Your task to perform on an android device: Search for desk lamps on article.com Image 0: 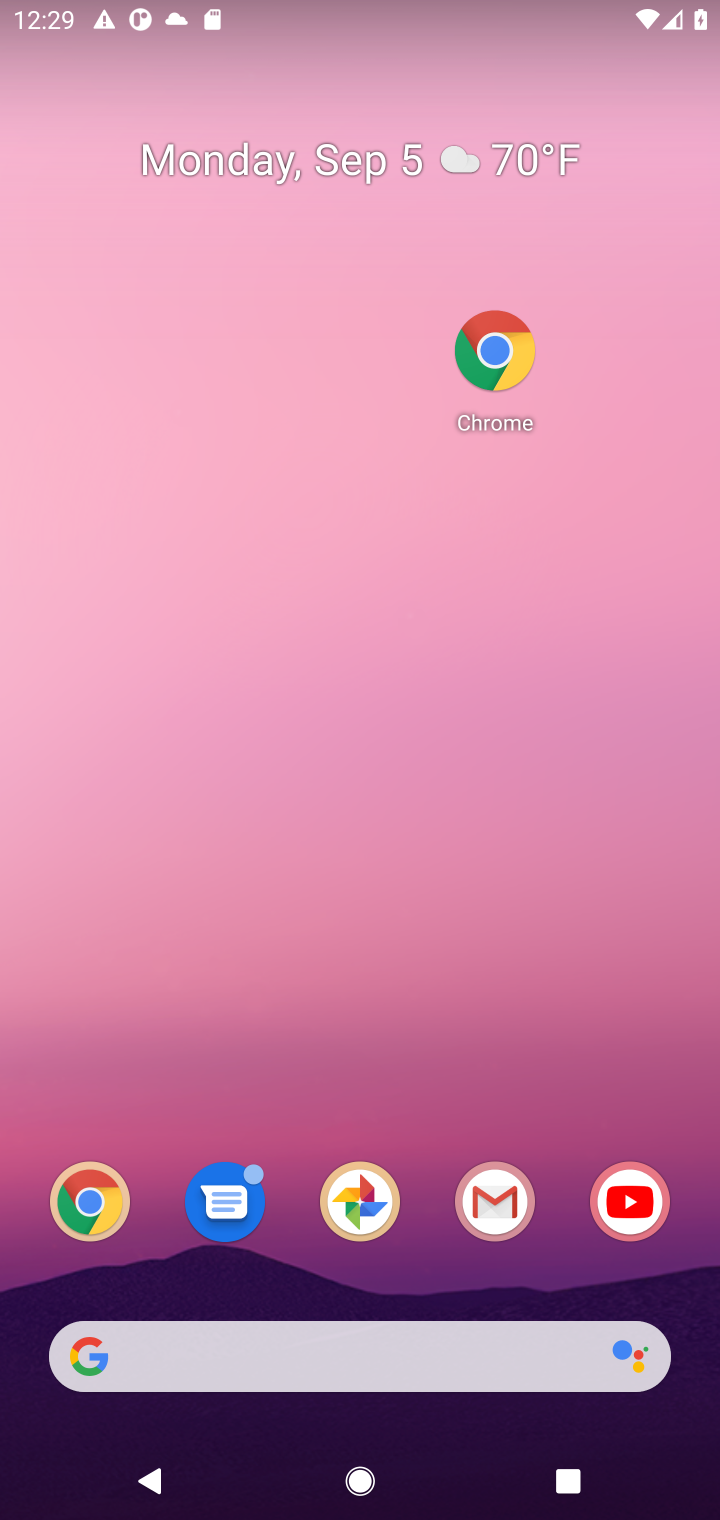
Step 0: drag from (430, 1209) to (628, 87)
Your task to perform on an android device: Search for desk lamps on article.com Image 1: 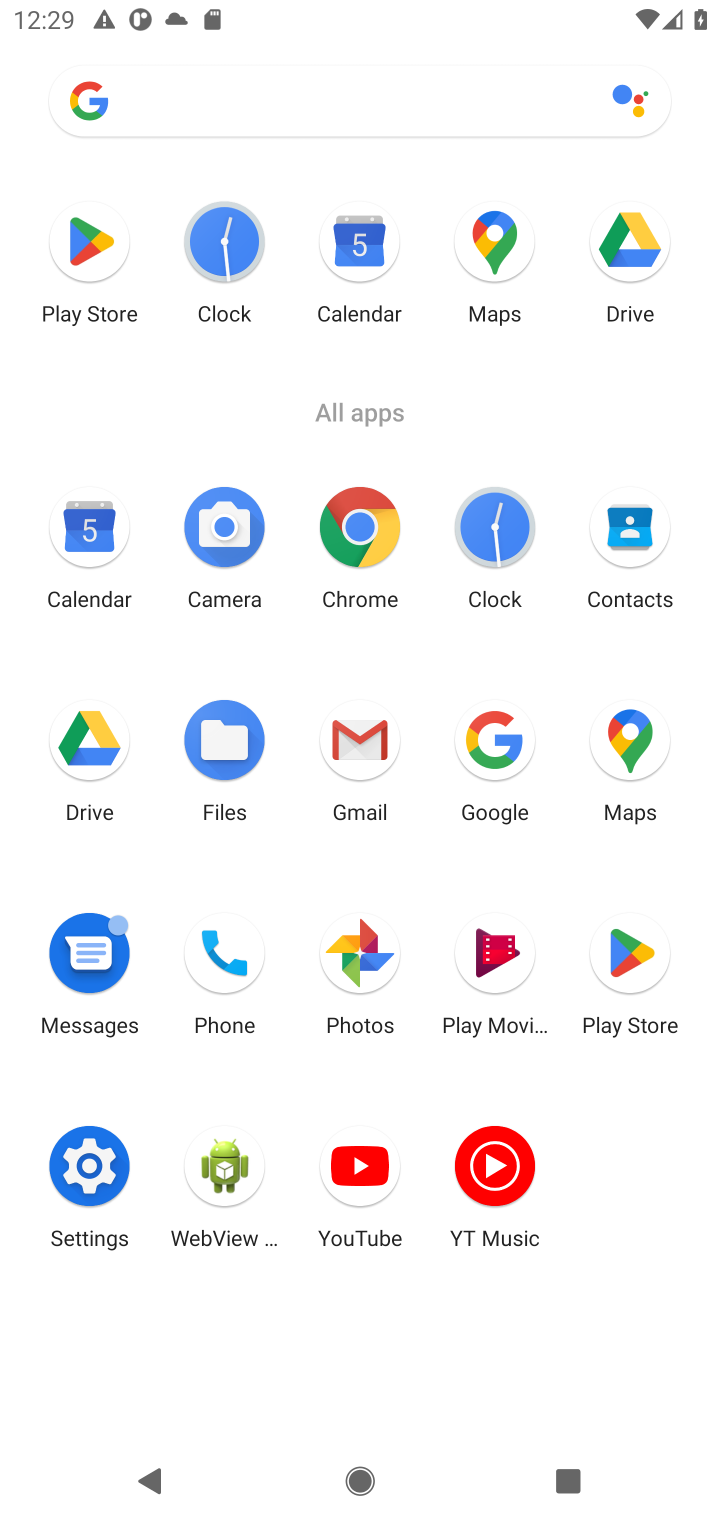
Step 1: click (359, 522)
Your task to perform on an android device: Search for desk lamps on article.com Image 2: 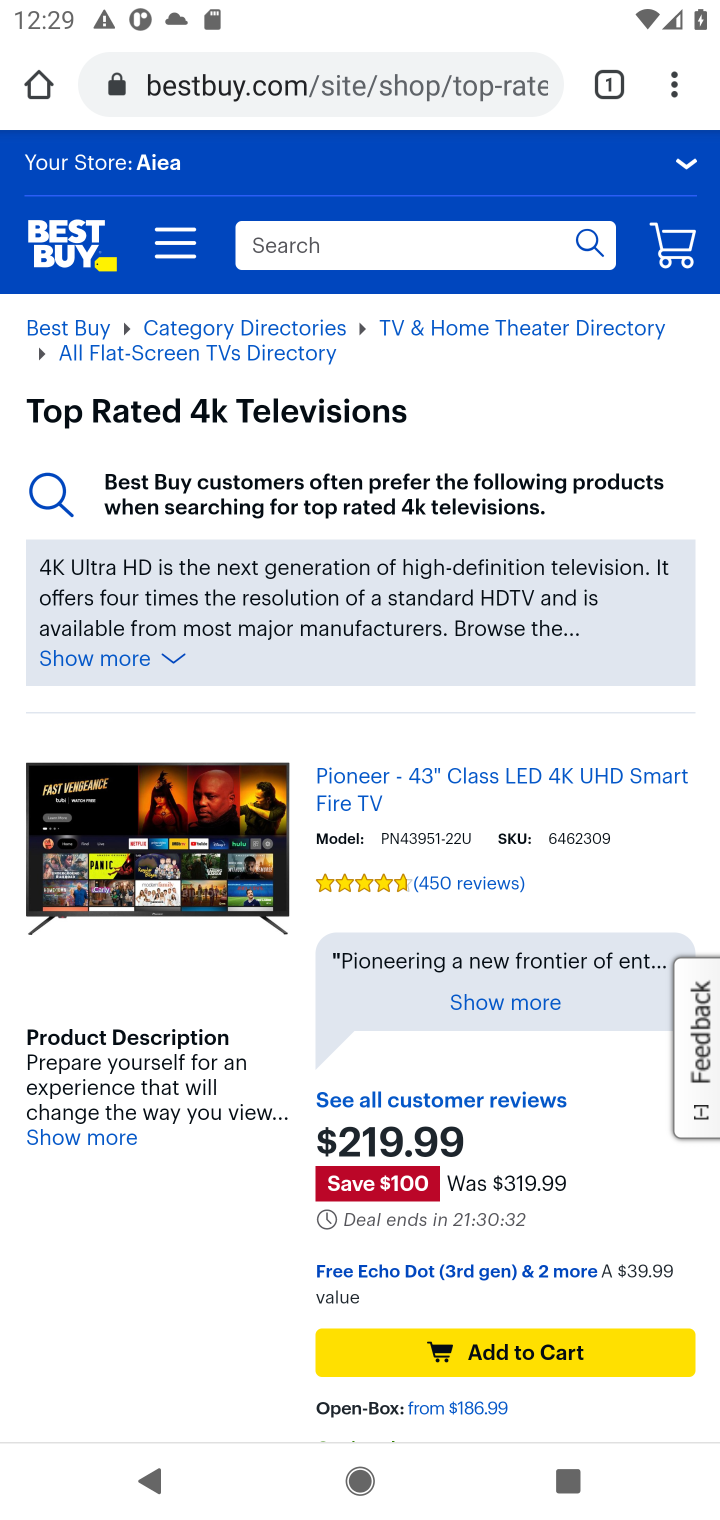
Step 2: click (338, 77)
Your task to perform on an android device: Search for desk lamps on article.com Image 3: 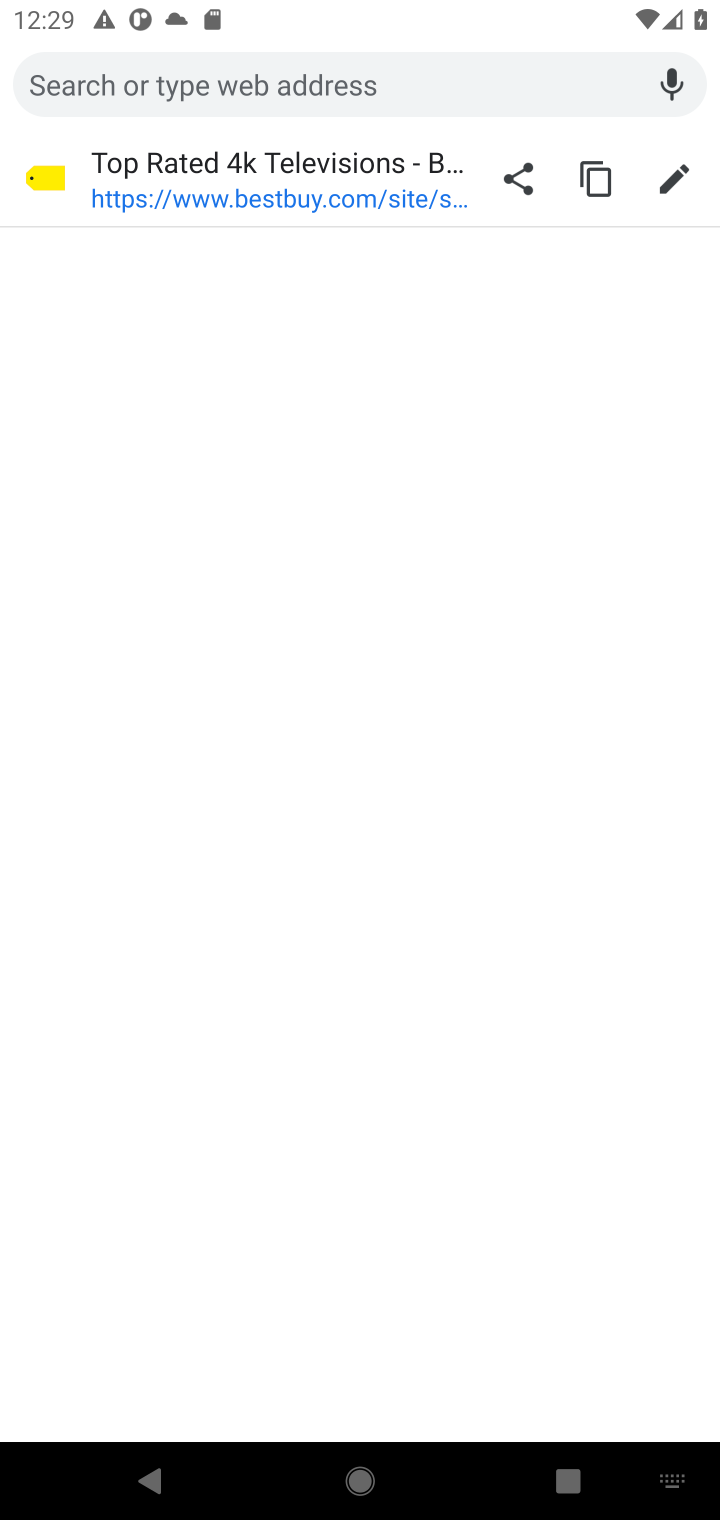
Step 3: type "desk lamps on article.com"
Your task to perform on an android device: Search for desk lamps on article.com Image 4: 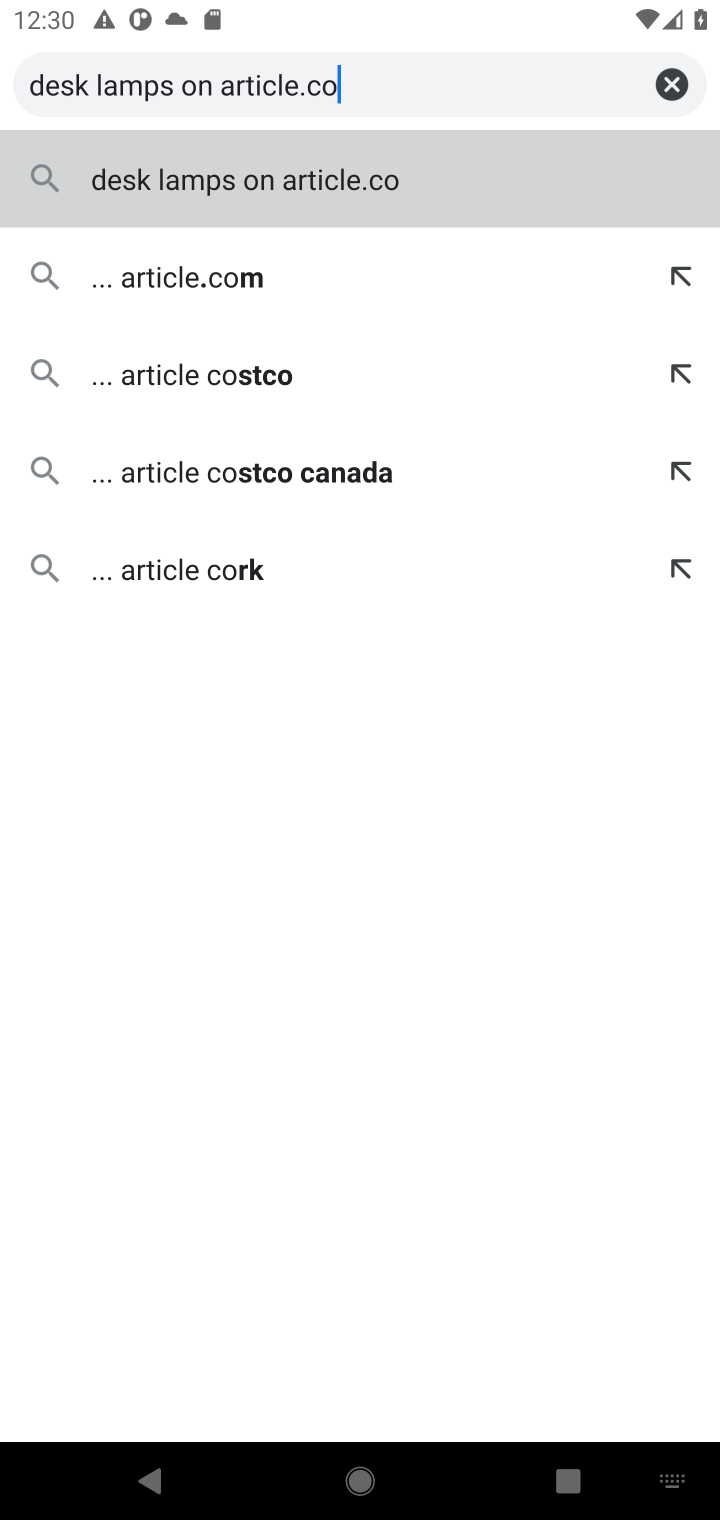
Step 4: type "m"
Your task to perform on an android device: Search for desk lamps on article.com Image 5: 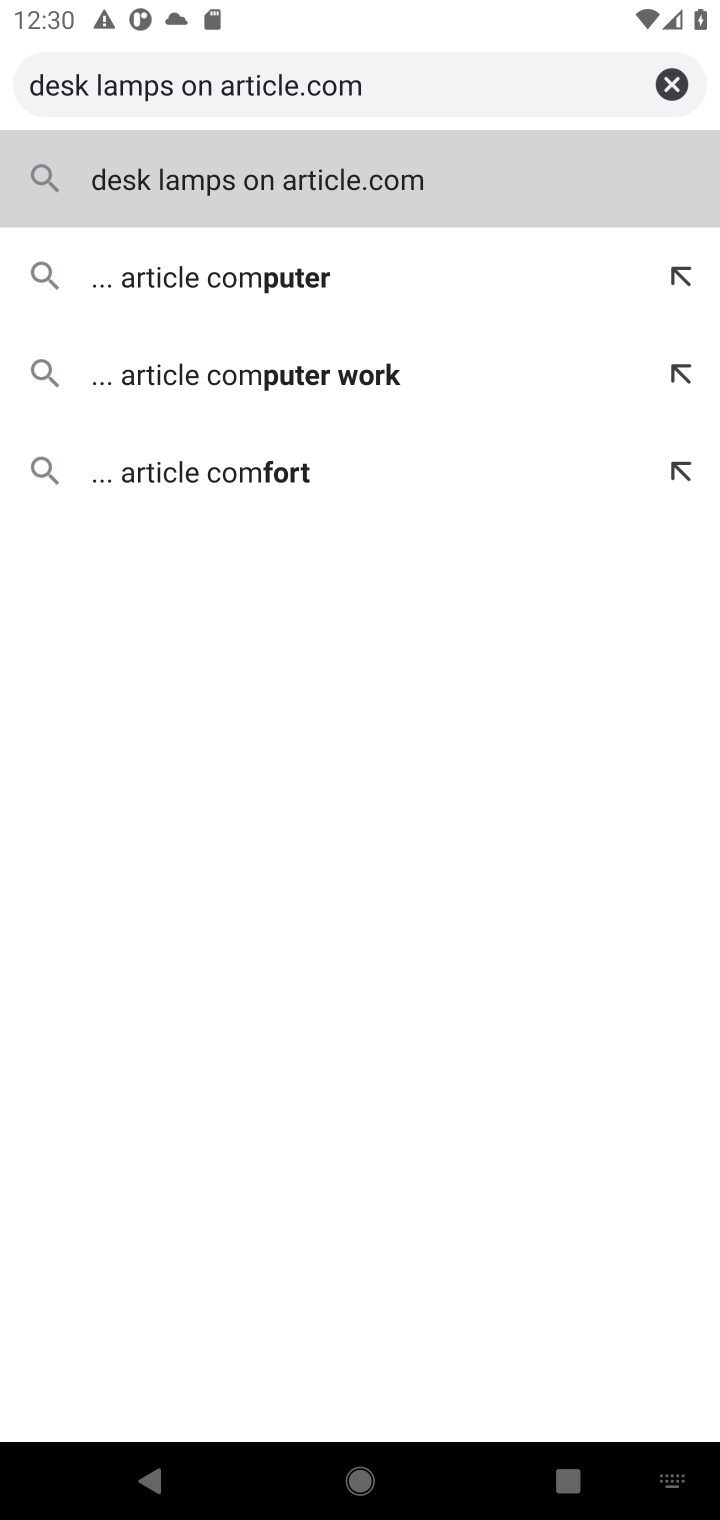
Step 5: press enter
Your task to perform on an android device: Search for desk lamps on article.com Image 6: 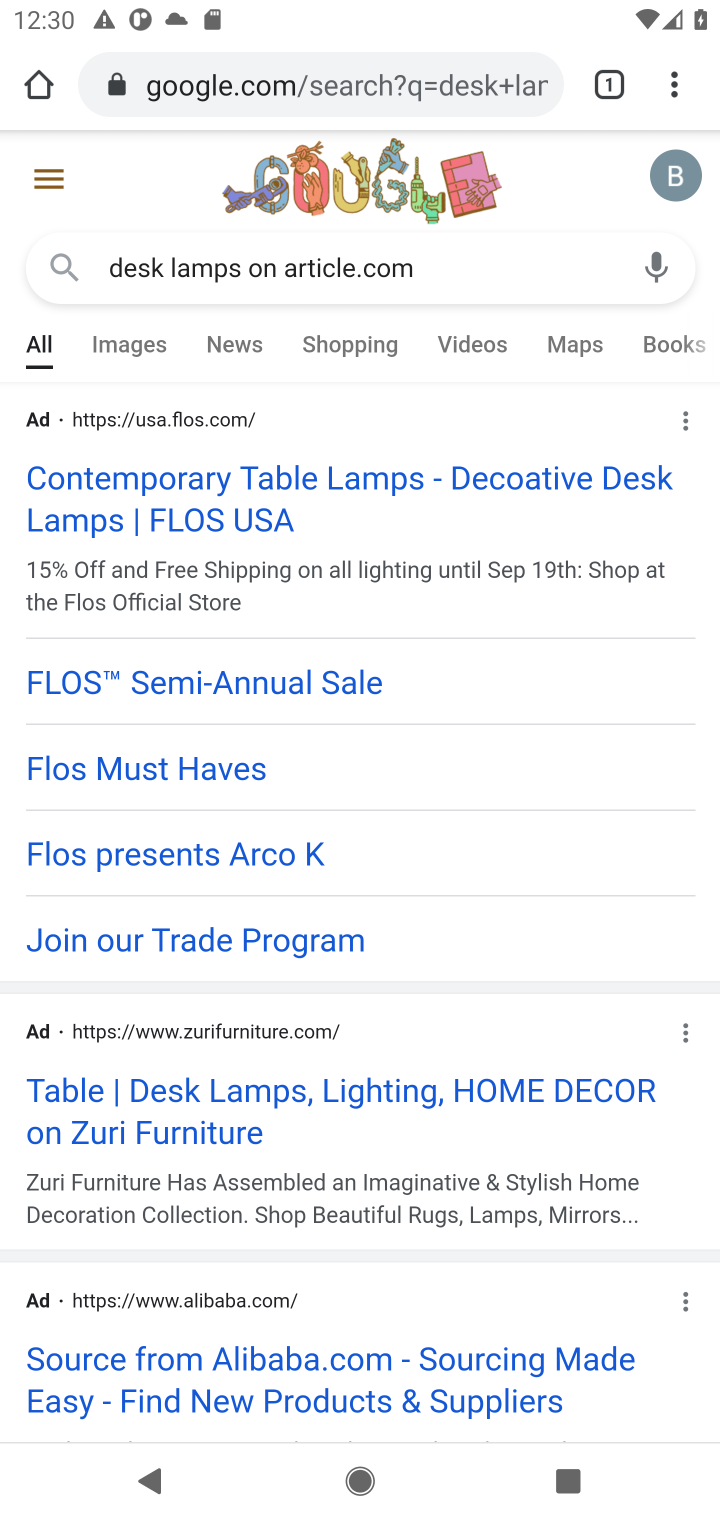
Step 6: drag from (297, 1048) to (267, 341)
Your task to perform on an android device: Search for desk lamps on article.com Image 7: 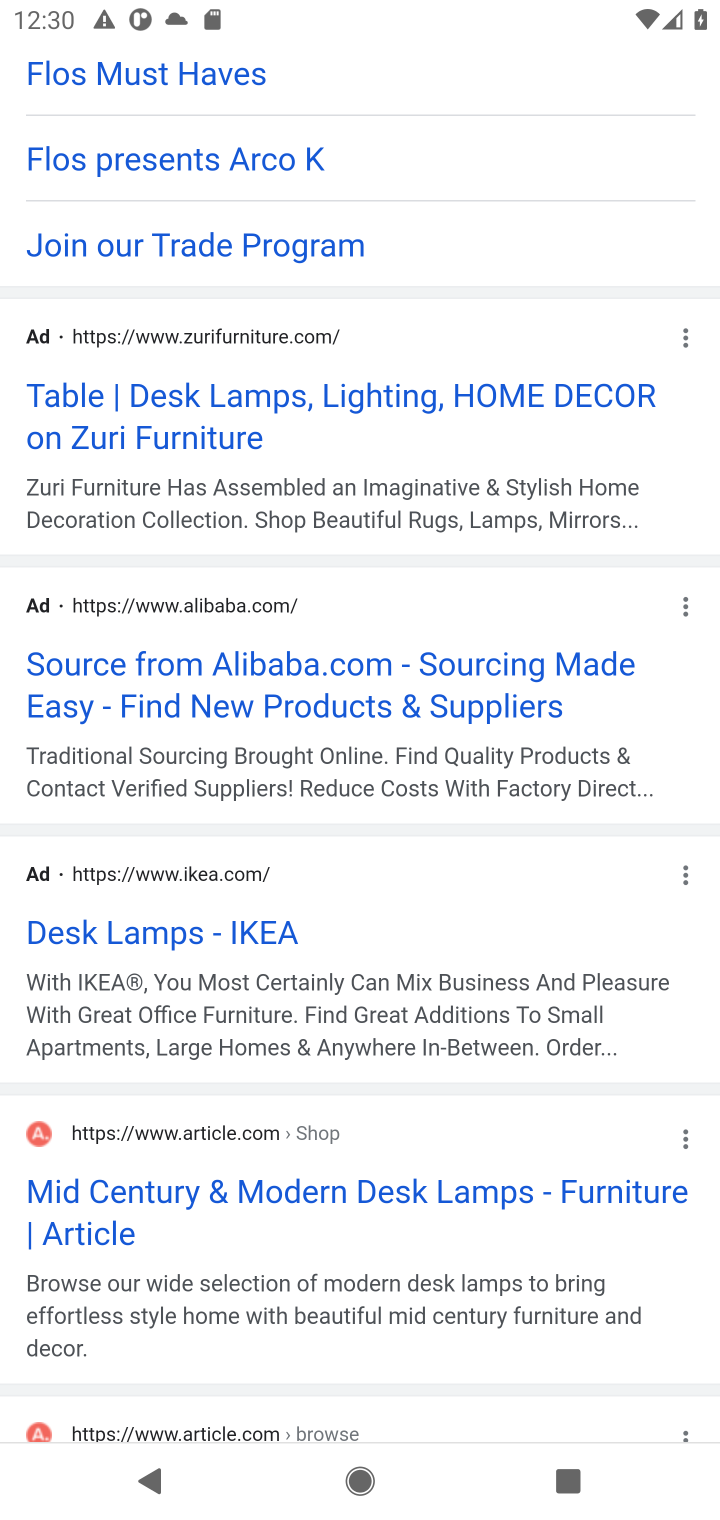
Step 7: click (293, 1185)
Your task to perform on an android device: Search for desk lamps on article.com Image 8: 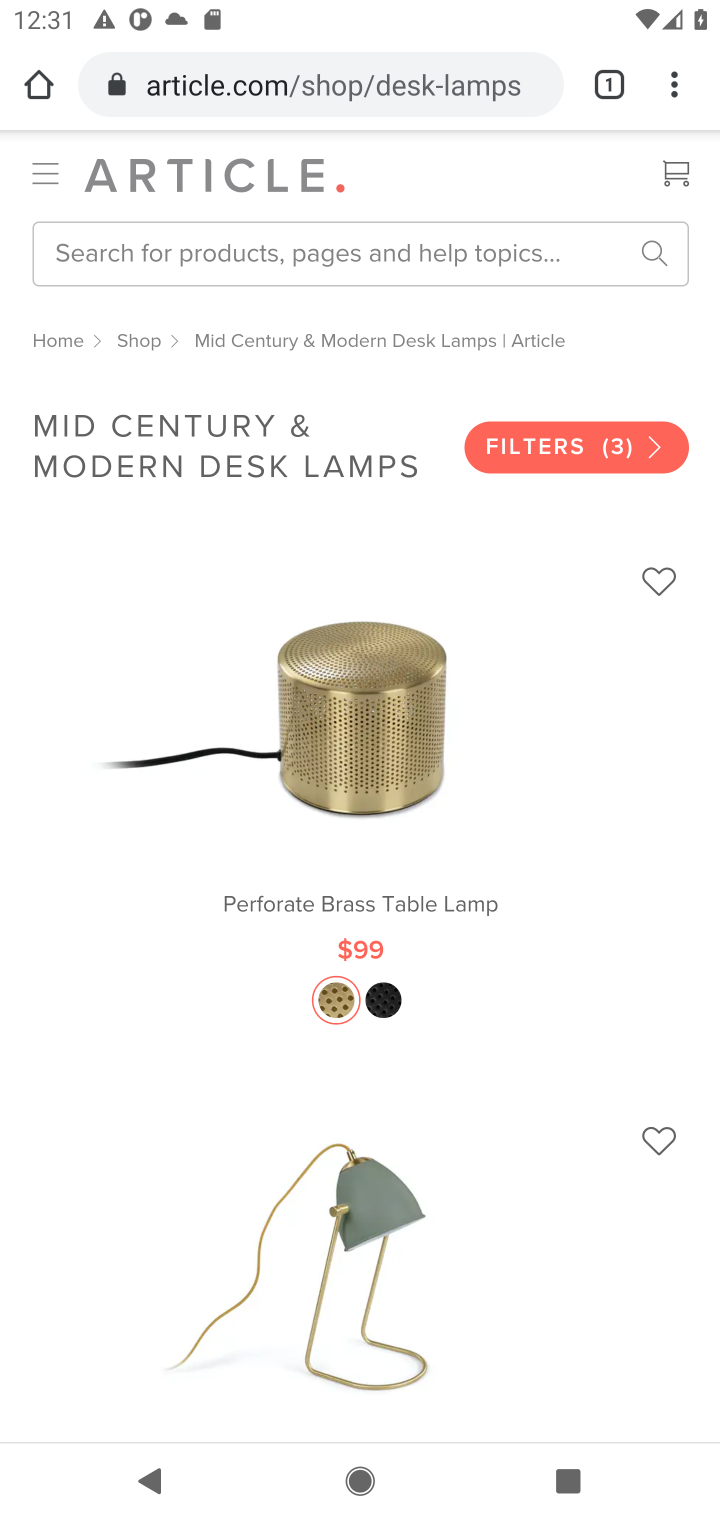
Step 8: task complete